Your task to perform on an android device: turn off location history Image 0: 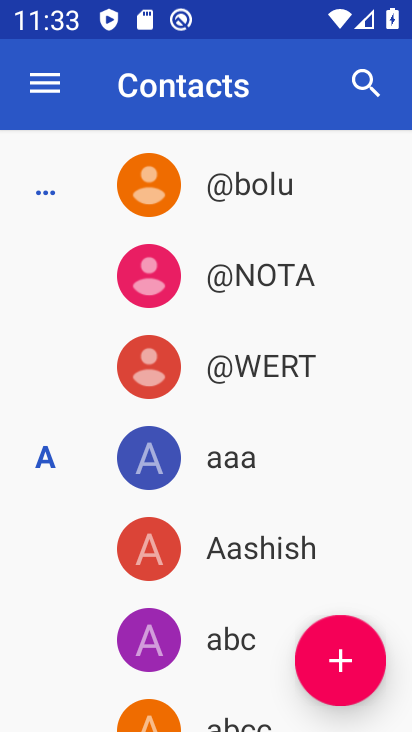
Step 0: press home button
Your task to perform on an android device: turn off location history Image 1: 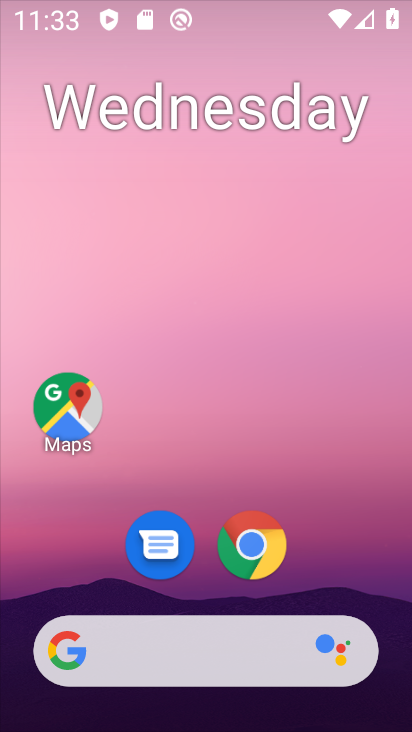
Step 1: drag from (307, 569) to (314, 113)
Your task to perform on an android device: turn off location history Image 2: 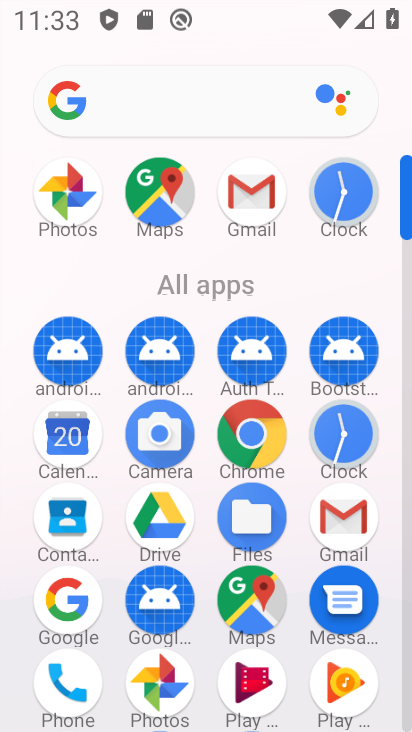
Step 2: drag from (211, 627) to (227, 268)
Your task to perform on an android device: turn off location history Image 3: 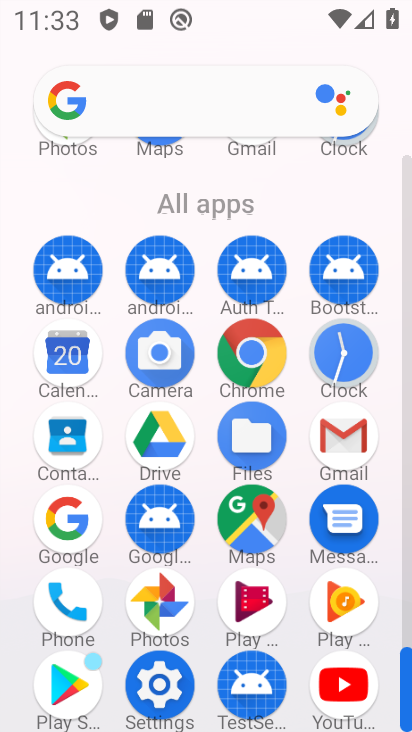
Step 3: click (151, 689)
Your task to perform on an android device: turn off location history Image 4: 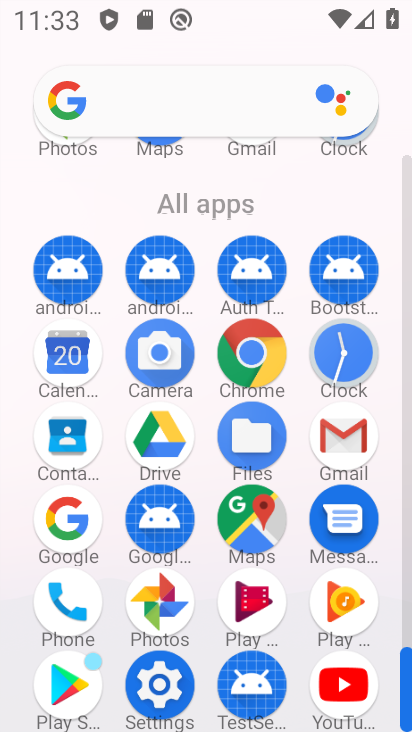
Step 4: click (171, 691)
Your task to perform on an android device: turn off location history Image 5: 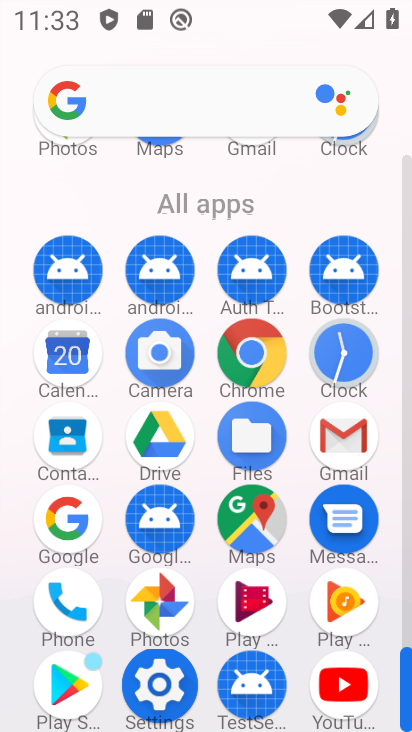
Step 5: click (163, 660)
Your task to perform on an android device: turn off location history Image 6: 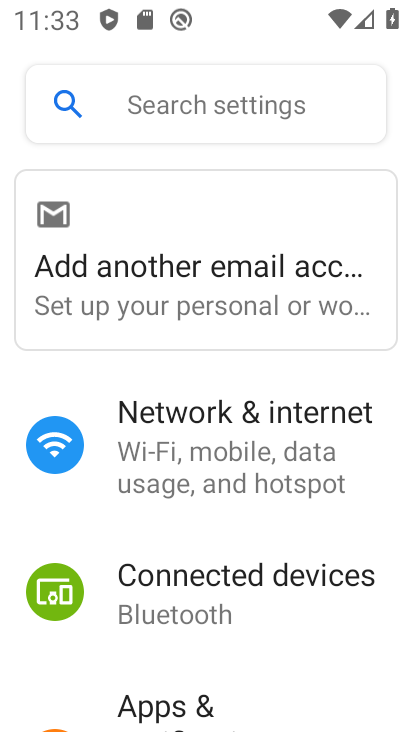
Step 6: drag from (259, 594) to (292, 291)
Your task to perform on an android device: turn off location history Image 7: 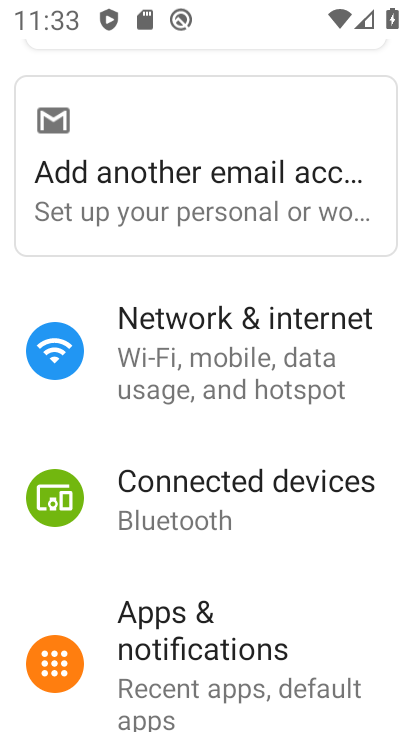
Step 7: drag from (197, 711) to (238, 379)
Your task to perform on an android device: turn off location history Image 8: 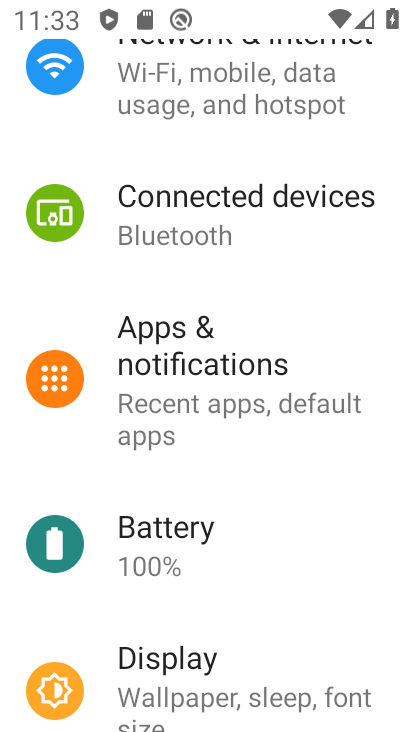
Step 8: drag from (266, 618) to (299, 112)
Your task to perform on an android device: turn off location history Image 9: 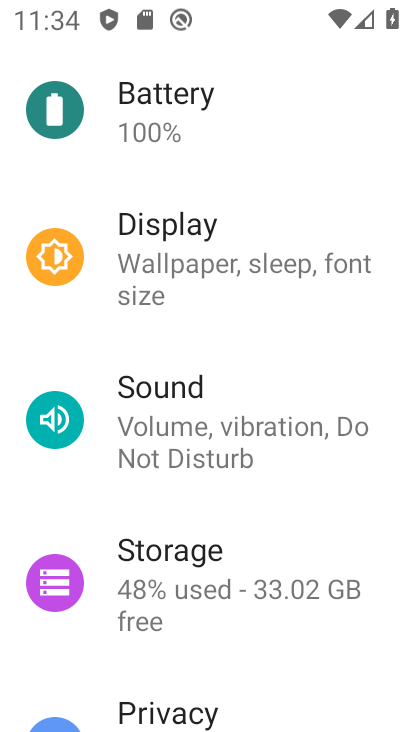
Step 9: drag from (282, 256) to (285, 706)
Your task to perform on an android device: turn off location history Image 10: 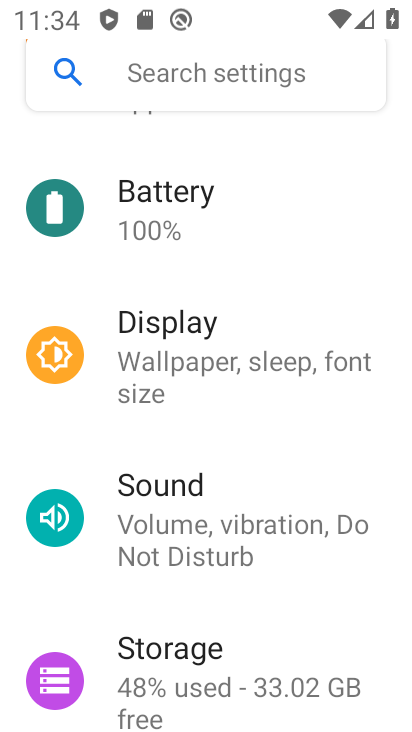
Step 10: drag from (273, 189) to (285, 567)
Your task to perform on an android device: turn off location history Image 11: 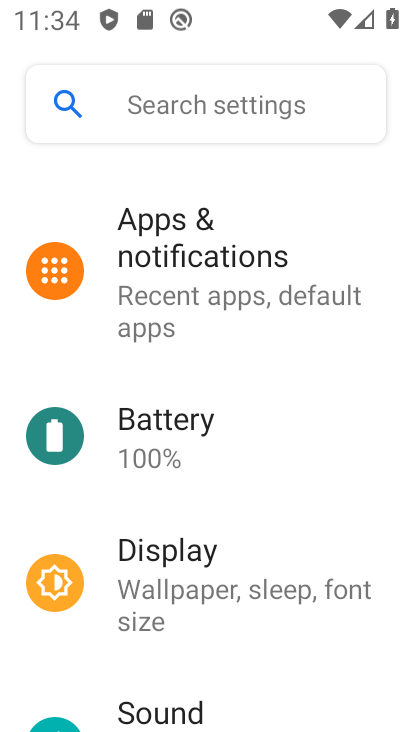
Step 11: click (255, 216)
Your task to perform on an android device: turn off location history Image 12: 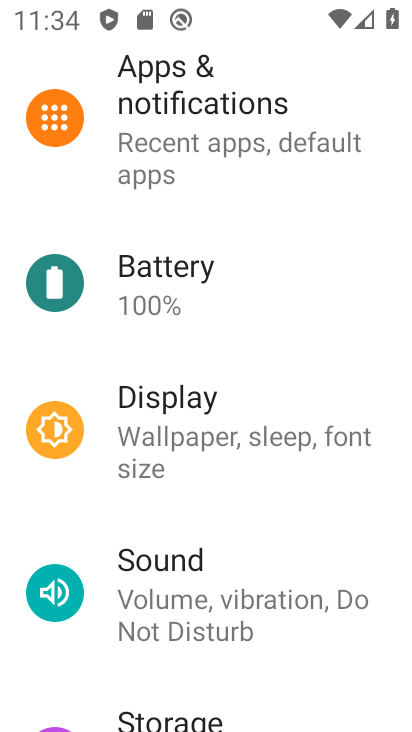
Step 12: drag from (231, 645) to (226, 234)
Your task to perform on an android device: turn off location history Image 13: 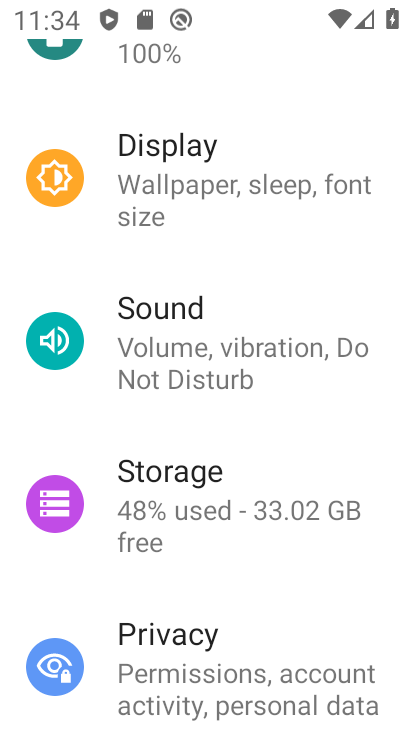
Step 13: drag from (224, 518) to (238, 230)
Your task to perform on an android device: turn off location history Image 14: 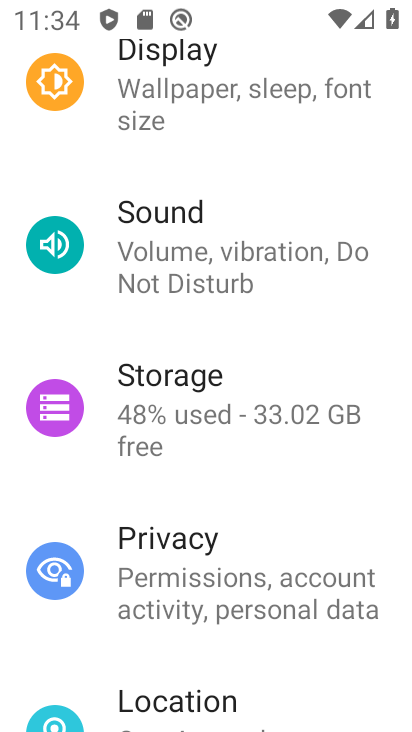
Step 14: click (209, 706)
Your task to perform on an android device: turn off location history Image 15: 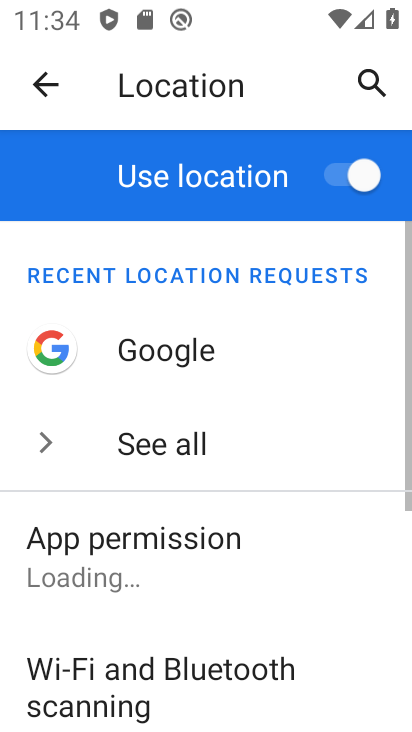
Step 15: drag from (224, 573) to (249, 181)
Your task to perform on an android device: turn off location history Image 16: 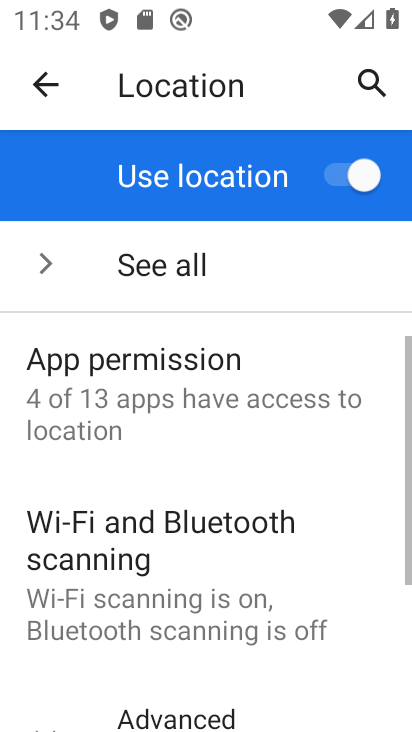
Step 16: click (49, 701)
Your task to perform on an android device: turn off location history Image 17: 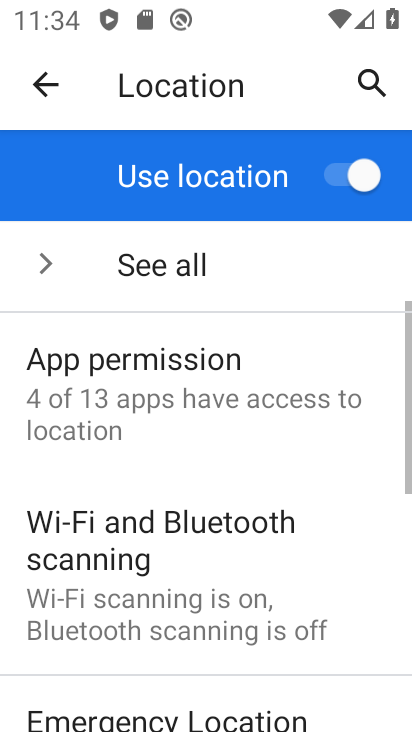
Step 17: drag from (219, 665) to (247, 278)
Your task to perform on an android device: turn off location history Image 18: 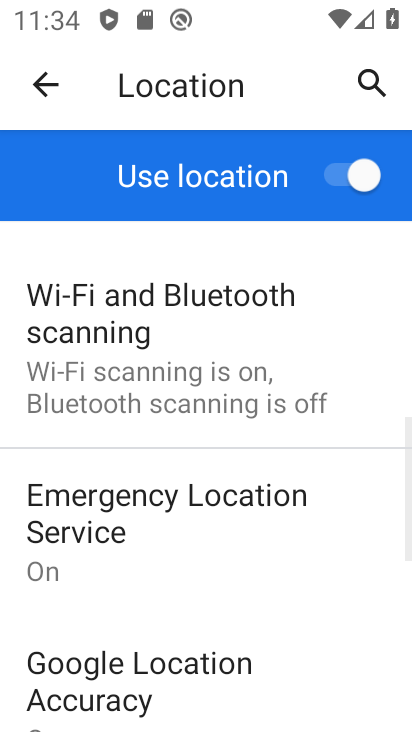
Step 18: drag from (210, 571) to (242, 300)
Your task to perform on an android device: turn off location history Image 19: 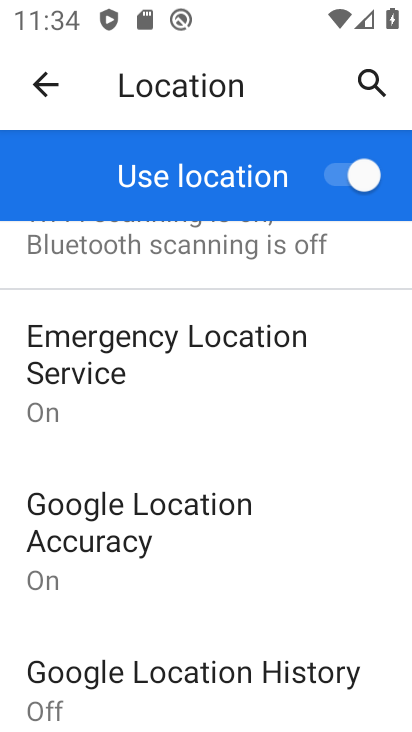
Step 19: click (43, 704)
Your task to perform on an android device: turn off location history Image 20: 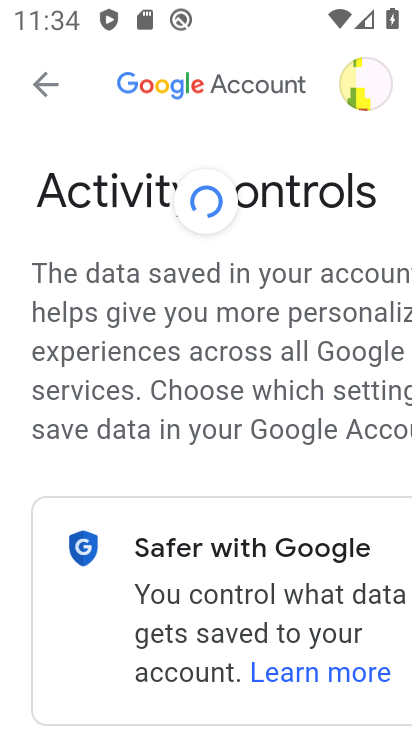
Step 20: drag from (228, 541) to (161, 189)
Your task to perform on an android device: turn off location history Image 21: 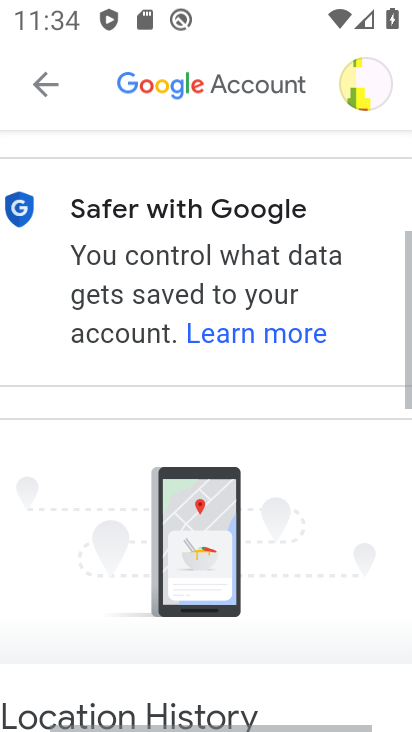
Step 21: drag from (281, 644) to (235, 225)
Your task to perform on an android device: turn off location history Image 22: 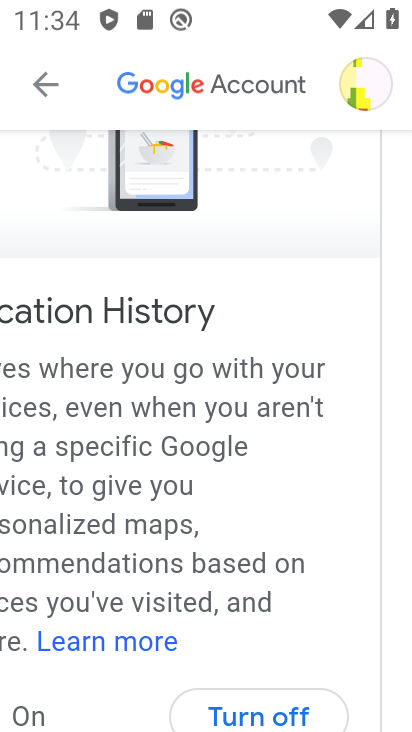
Step 22: drag from (266, 585) to (275, 526)
Your task to perform on an android device: turn off location history Image 23: 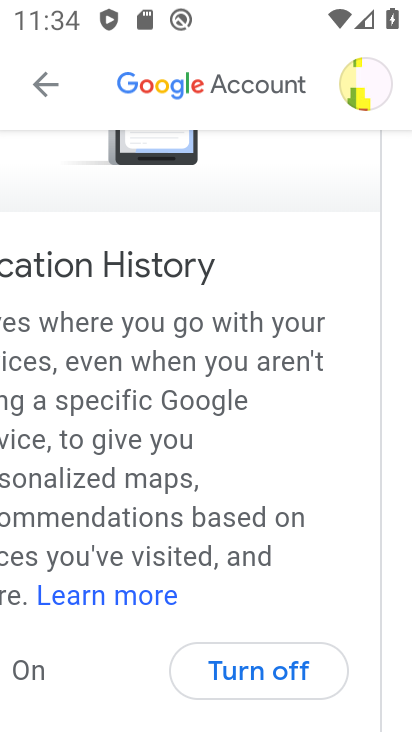
Step 23: click (262, 670)
Your task to perform on an android device: turn off location history Image 24: 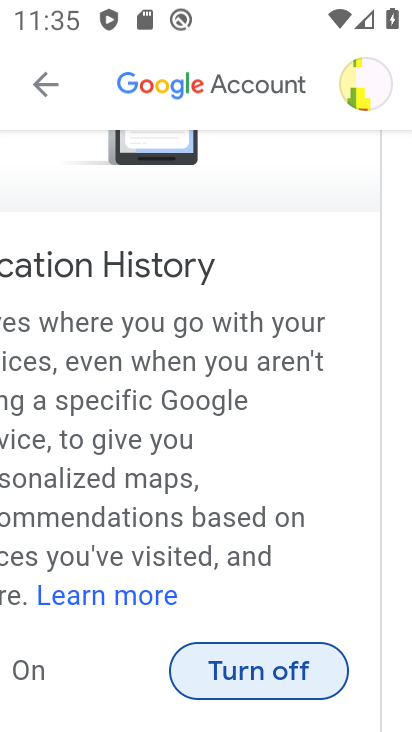
Step 24: drag from (260, 619) to (260, 310)
Your task to perform on an android device: turn off location history Image 25: 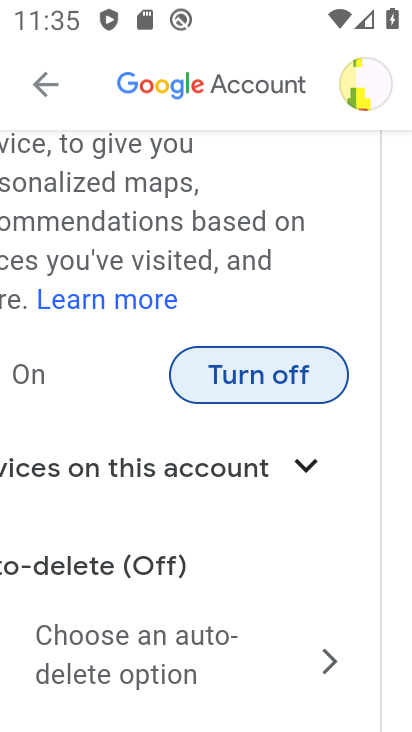
Step 25: click (260, 361)
Your task to perform on an android device: turn off location history Image 26: 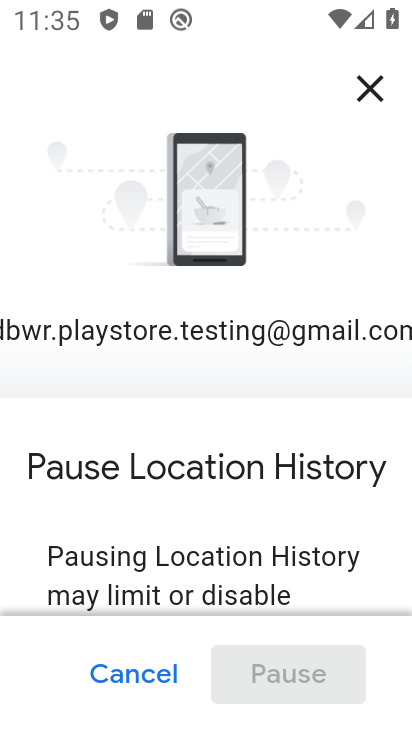
Step 26: drag from (279, 531) to (280, 169)
Your task to perform on an android device: turn off location history Image 27: 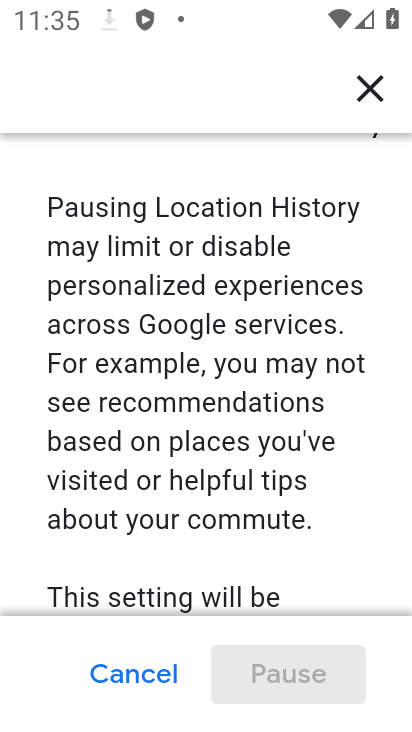
Step 27: drag from (294, 472) to (289, 219)
Your task to perform on an android device: turn off location history Image 28: 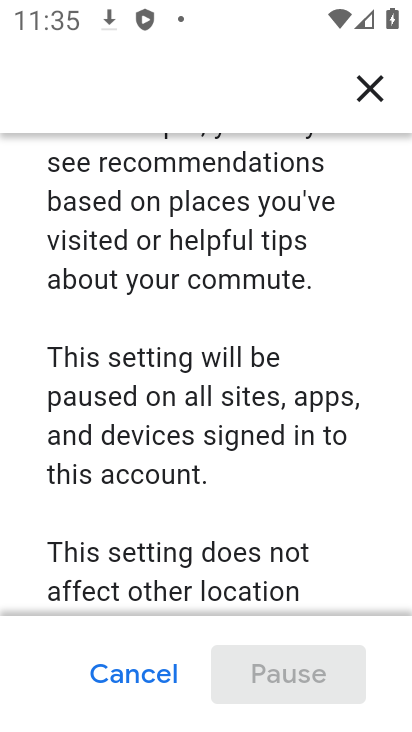
Step 28: drag from (284, 497) to (269, 246)
Your task to perform on an android device: turn off location history Image 29: 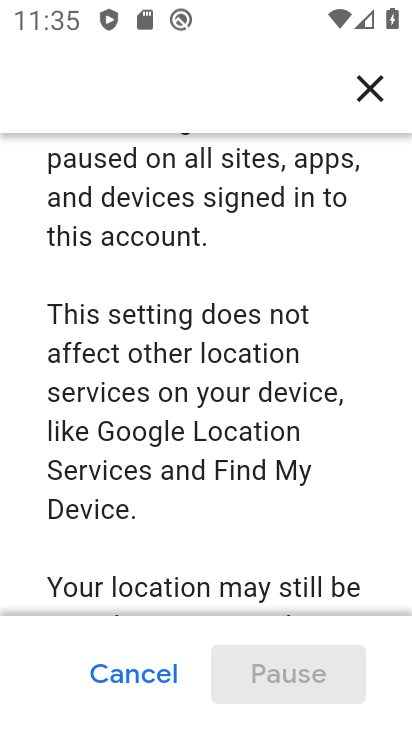
Step 29: drag from (250, 478) to (258, 173)
Your task to perform on an android device: turn off location history Image 30: 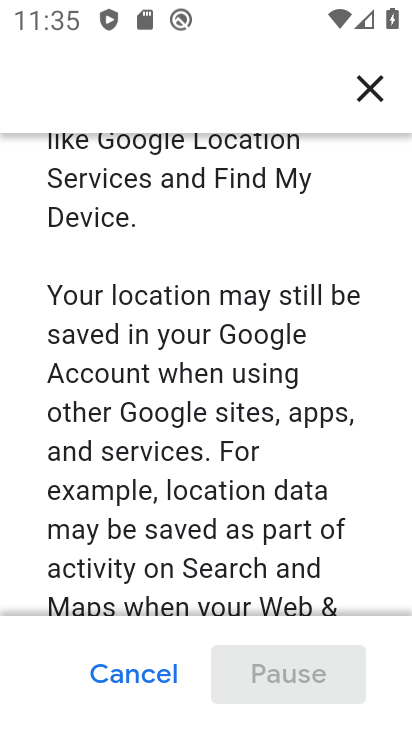
Step 30: drag from (277, 506) to (276, 226)
Your task to perform on an android device: turn off location history Image 31: 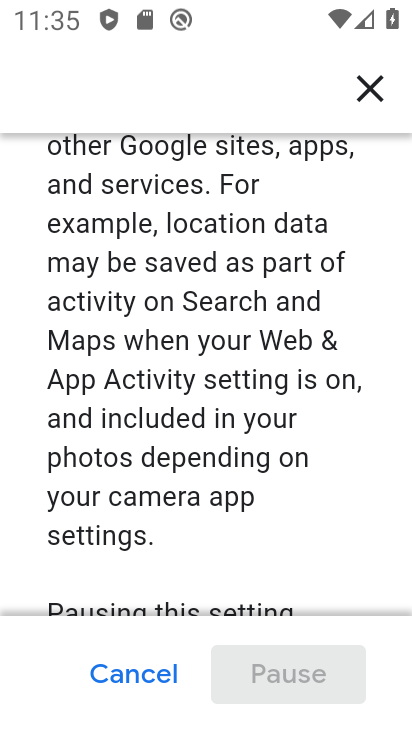
Step 31: drag from (285, 551) to (288, 208)
Your task to perform on an android device: turn off location history Image 32: 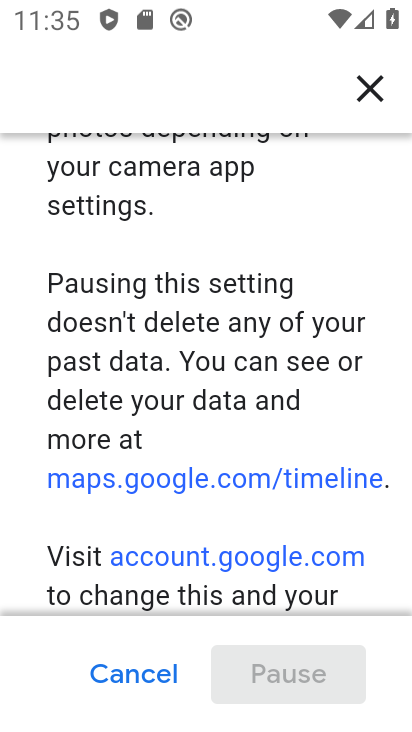
Step 32: drag from (254, 505) to (268, 167)
Your task to perform on an android device: turn off location history Image 33: 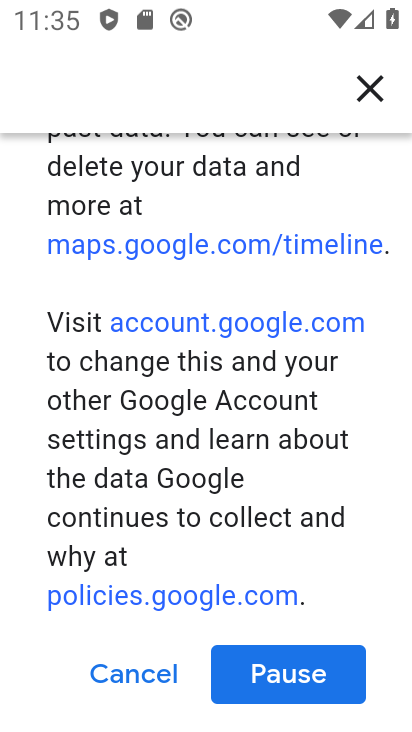
Step 33: click (295, 674)
Your task to perform on an android device: turn off location history Image 34: 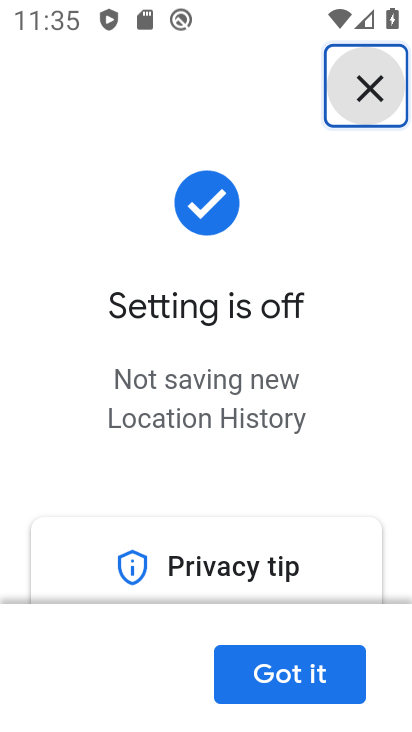
Step 34: task complete